Your task to perform on an android device: Show me popular games on the Play Store Image 0: 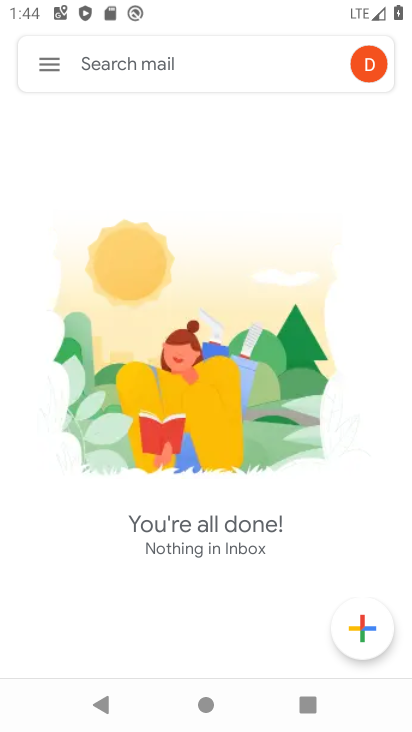
Step 0: press home button
Your task to perform on an android device: Show me popular games on the Play Store Image 1: 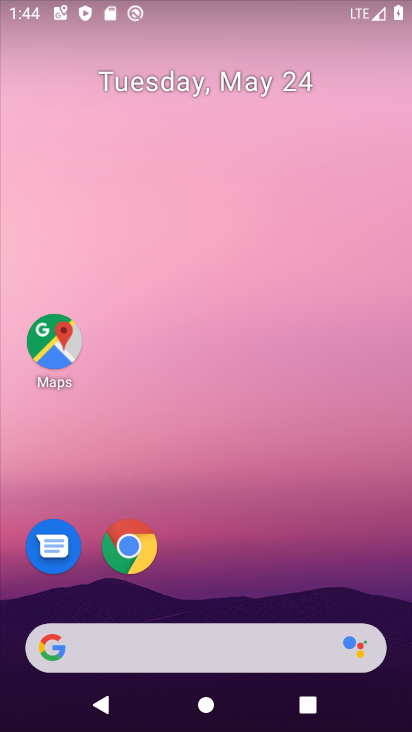
Step 1: drag from (216, 619) to (321, 0)
Your task to perform on an android device: Show me popular games on the Play Store Image 2: 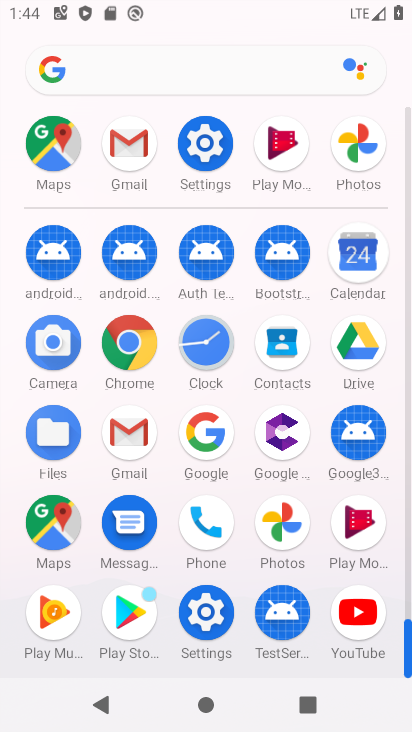
Step 2: click (128, 605)
Your task to perform on an android device: Show me popular games on the Play Store Image 3: 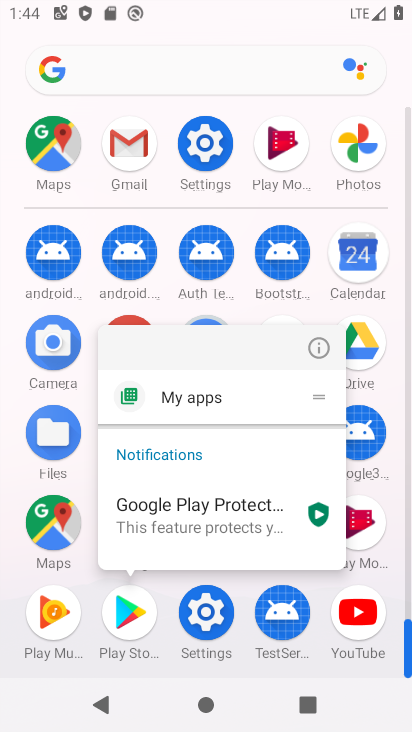
Step 3: click (316, 353)
Your task to perform on an android device: Show me popular games on the Play Store Image 4: 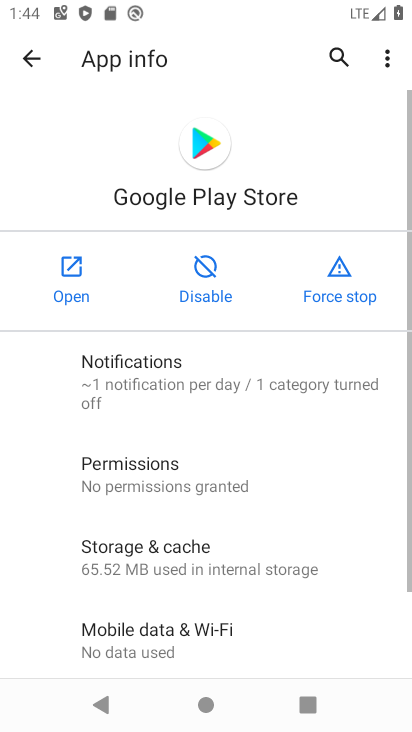
Step 4: click (82, 290)
Your task to perform on an android device: Show me popular games on the Play Store Image 5: 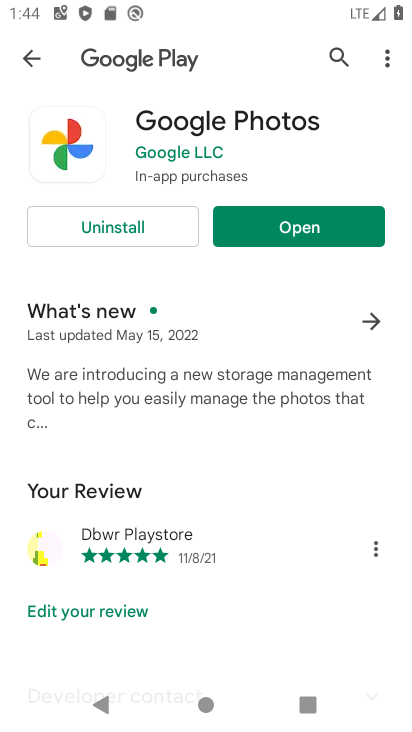
Step 5: press back button
Your task to perform on an android device: Show me popular games on the Play Store Image 6: 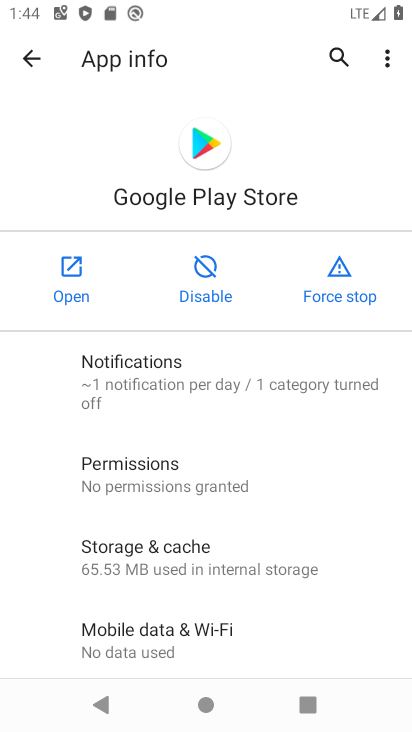
Step 6: press back button
Your task to perform on an android device: Show me popular games on the Play Store Image 7: 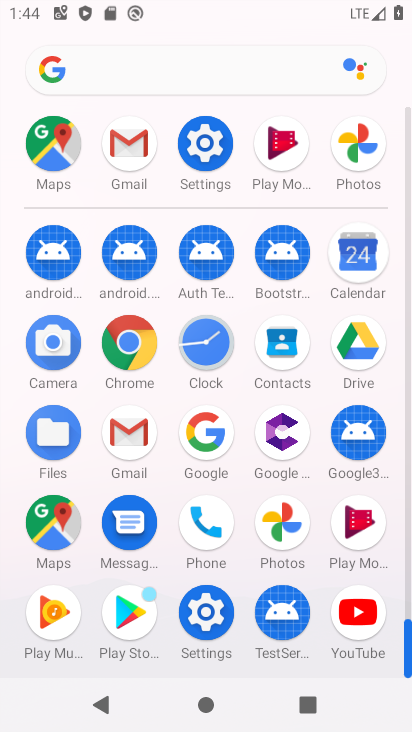
Step 7: click (137, 628)
Your task to perform on an android device: Show me popular games on the Play Store Image 8: 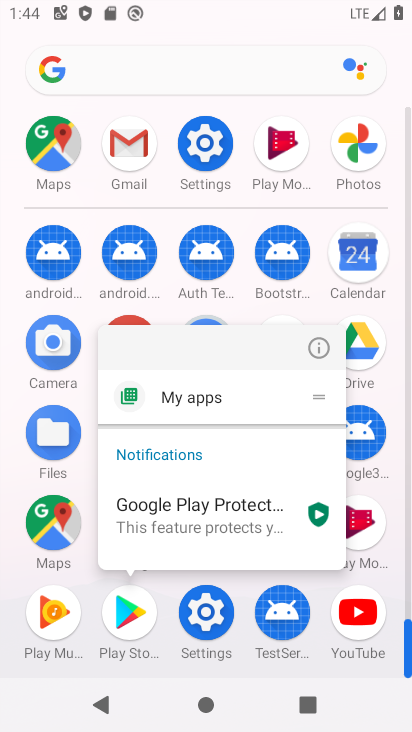
Step 8: click (320, 346)
Your task to perform on an android device: Show me popular games on the Play Store Image 9: 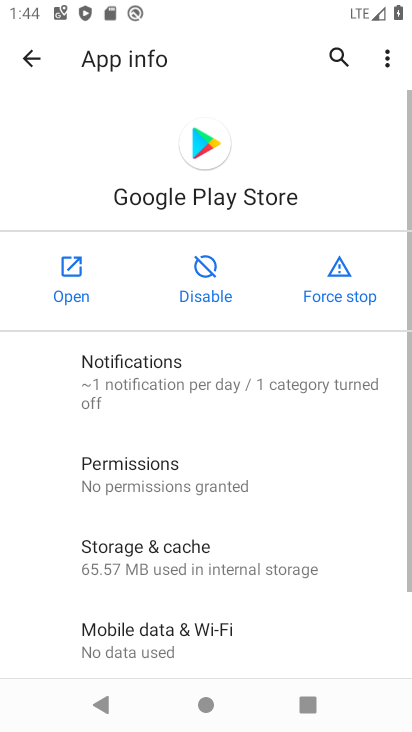
Step 9: click (73, 262)
Your task to perform on an android device: Show me popular games on the Play Store Image 10: 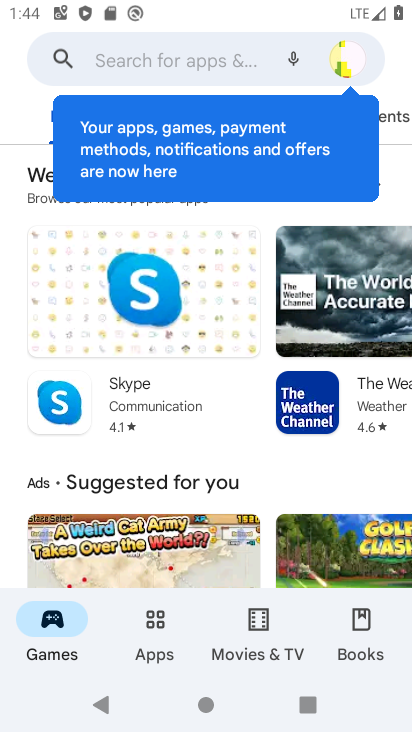
Step 10: click (158, 619)
Your task to perform on an android device: Show me popular games on the Play Store Image 11: 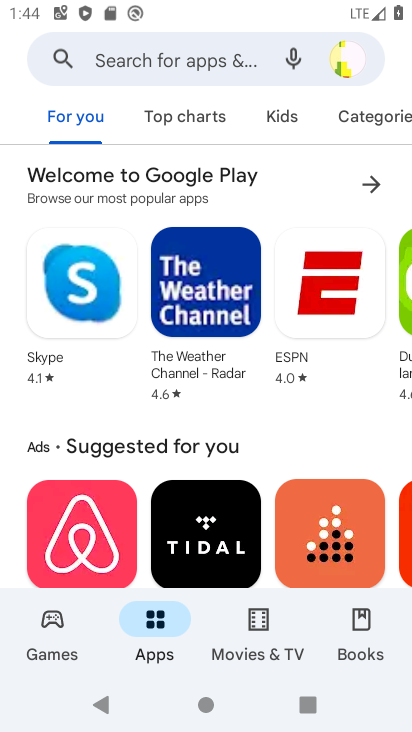
Step 11: click (33, 634)
Your task to perform on an android device: Show me popular games on the Play Store Image 12: 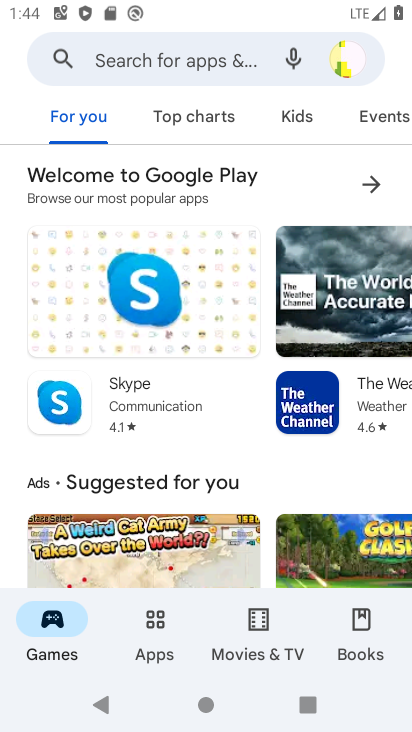
Step 12: drag from (136, 533) to (307, 106)
Your task to perform on an android device: Show me popular games on the Play Store Image 13: 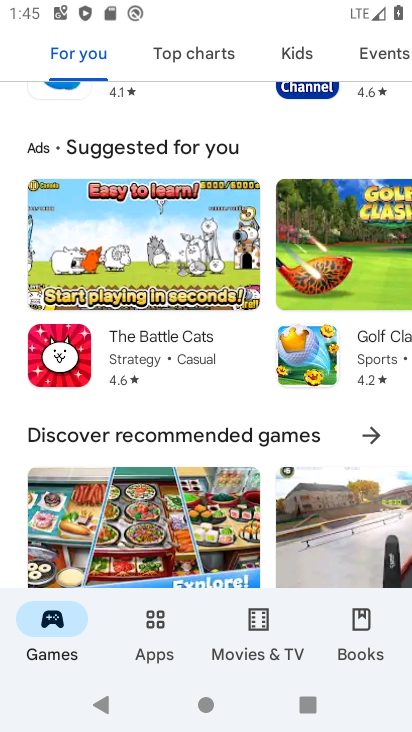
Step 13: drag from (244, 543) to (339, 124)
Your task to perform on an android device: Show me popular games on the Play Store Image 14: 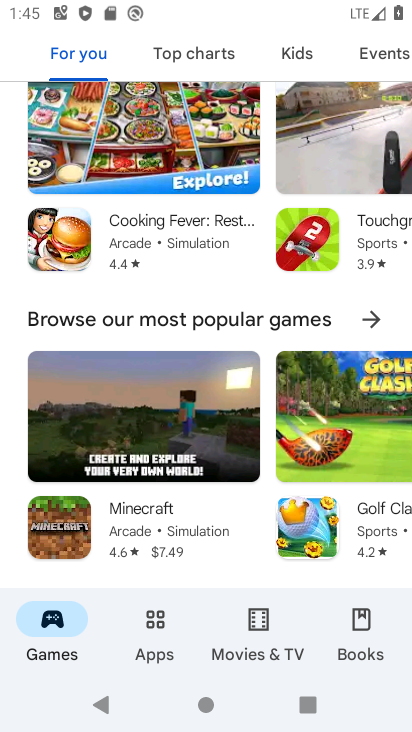
Step 14: drag from (279, 282) to (371, 225)
Your task to perform on an android device: Show me popular games on the Play Store Image 15: 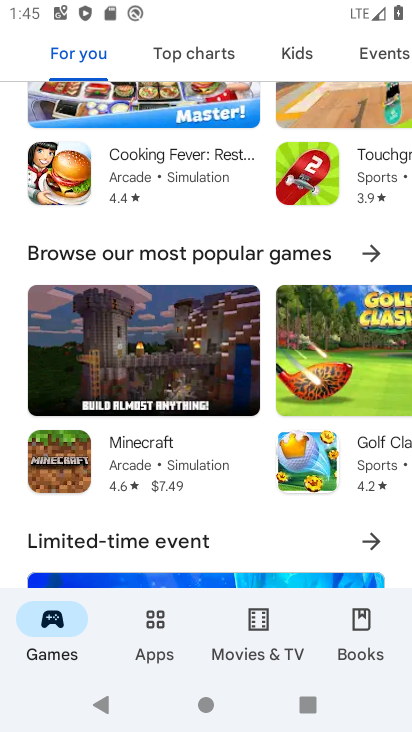
Step 15: click (369, 247)
Your task to perform on an android device: Show me popular games on the Play Store Image 16: 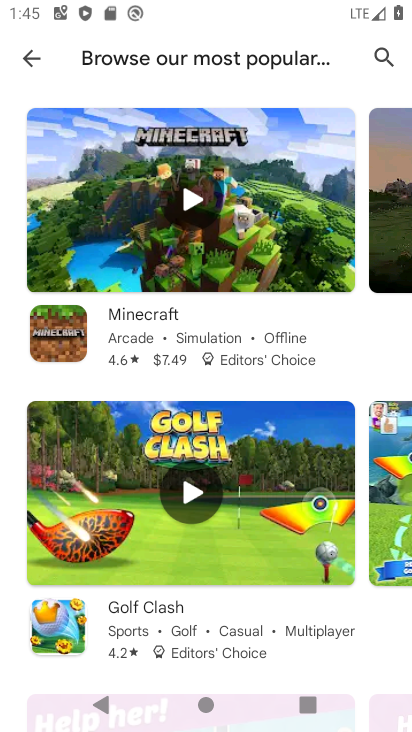
Step 16: task complete